Your task to perform on an android device: change the clock display to analog Image 0: 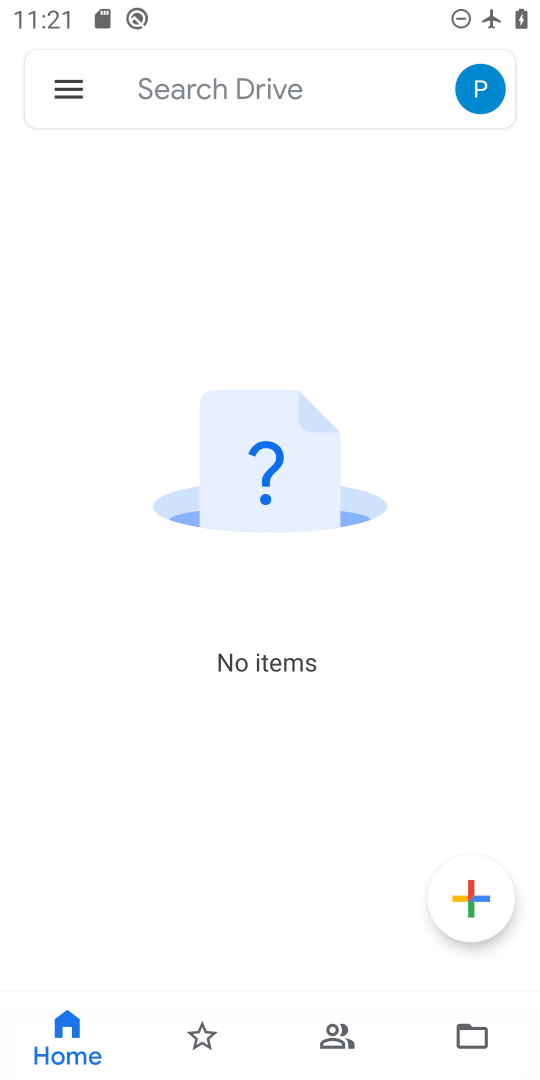
Step 0: press home button
Your task to perform on an android device: change the clock display to analog Image 1: 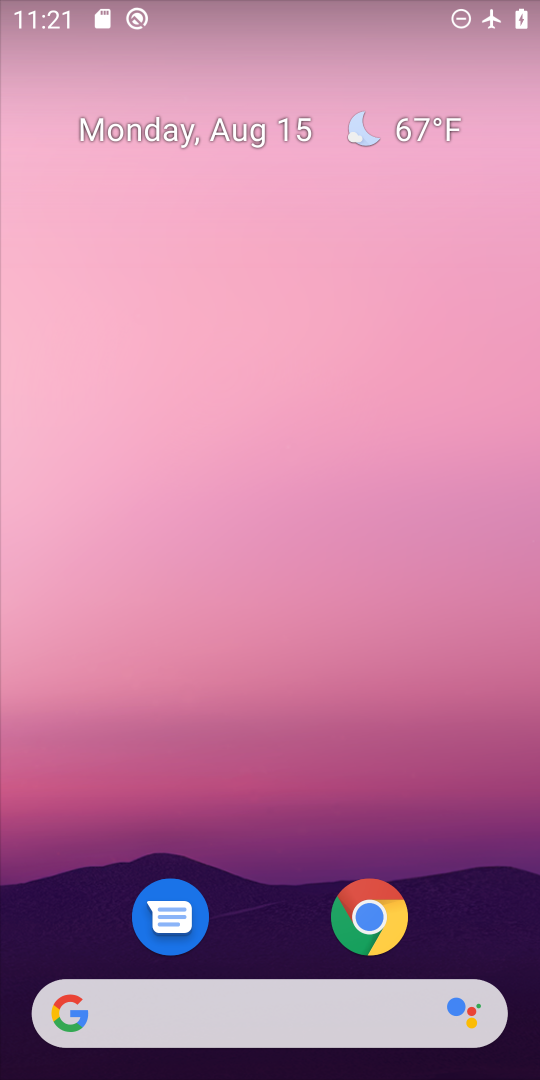
Step 1: drag from (335, 702) to (327, 18)
Your task to perform on an android device: change the clock display to analog Image 2: 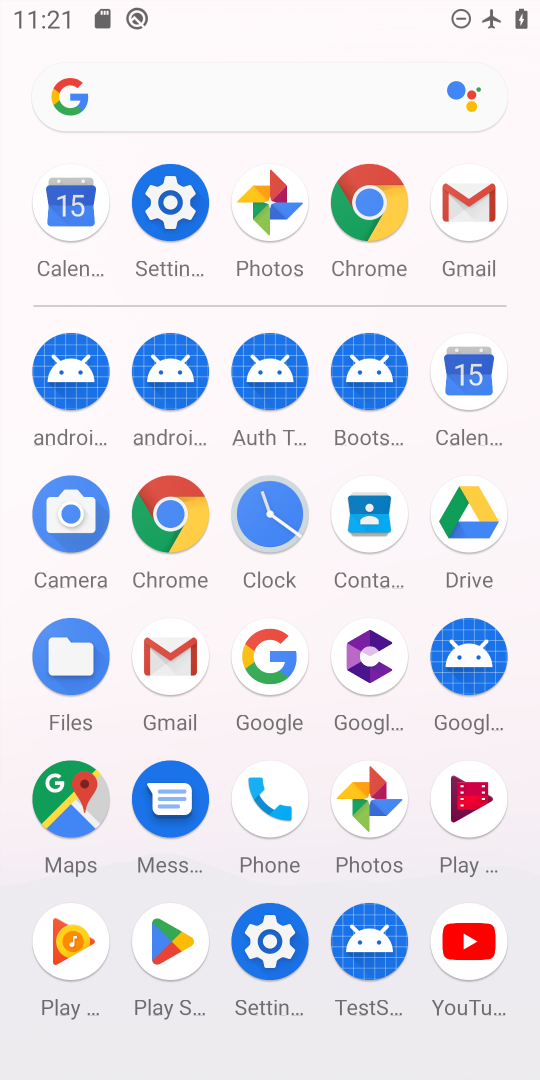
Step 2: click (280, 515)
Your task to perform on an android device: change the clock display to analog Image 3: 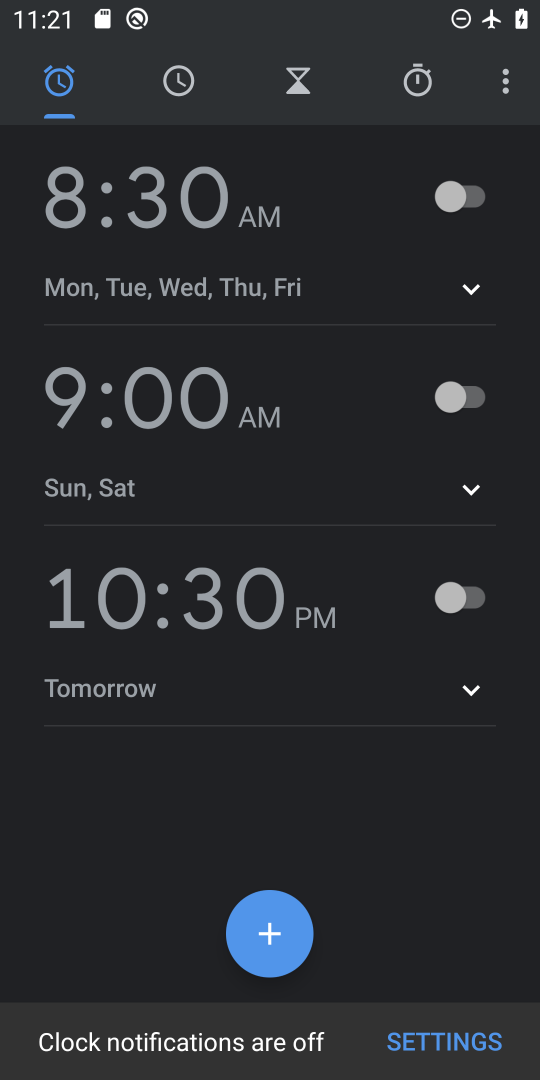
Step 3: click (182, 75)
Your task to perform on an android device: change the clock display to analog Image 4: 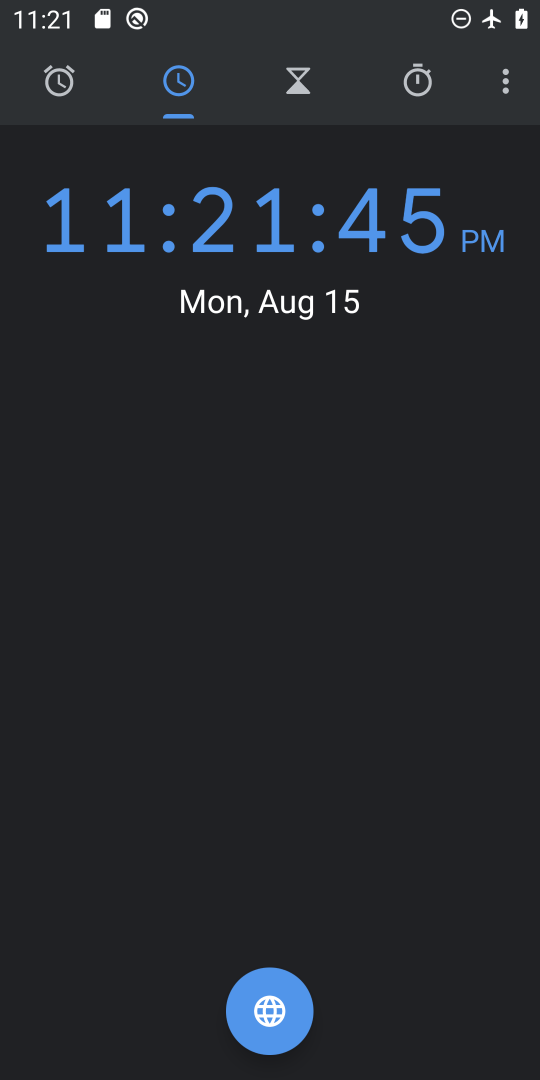
Step 4: click (505, 88)
Your task to perform on an android device: change the clock display to analog Image 5: 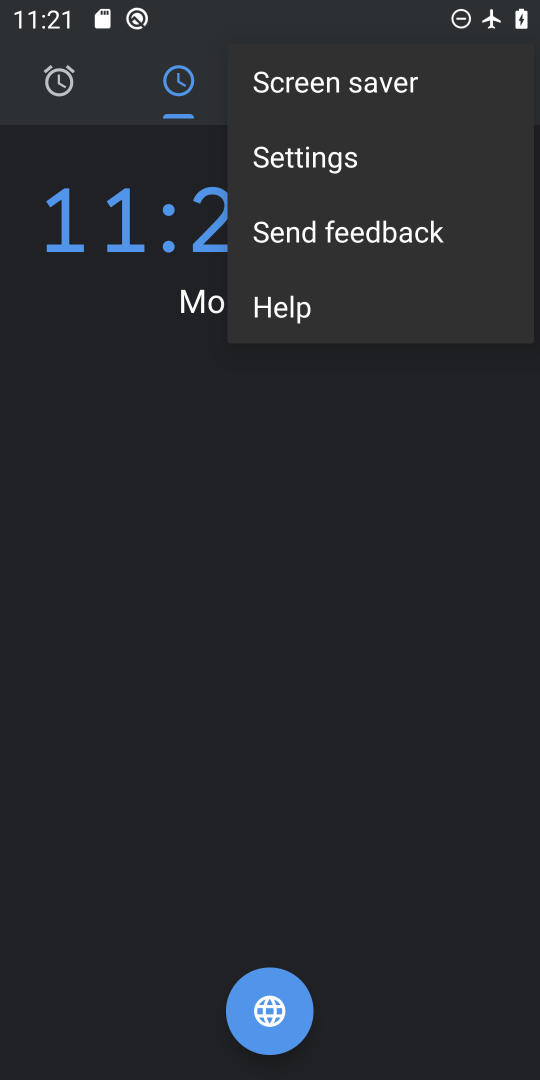
Step 5: click (415, 157)
Your task to perform on an android device: change the clock display to analog Image 6: 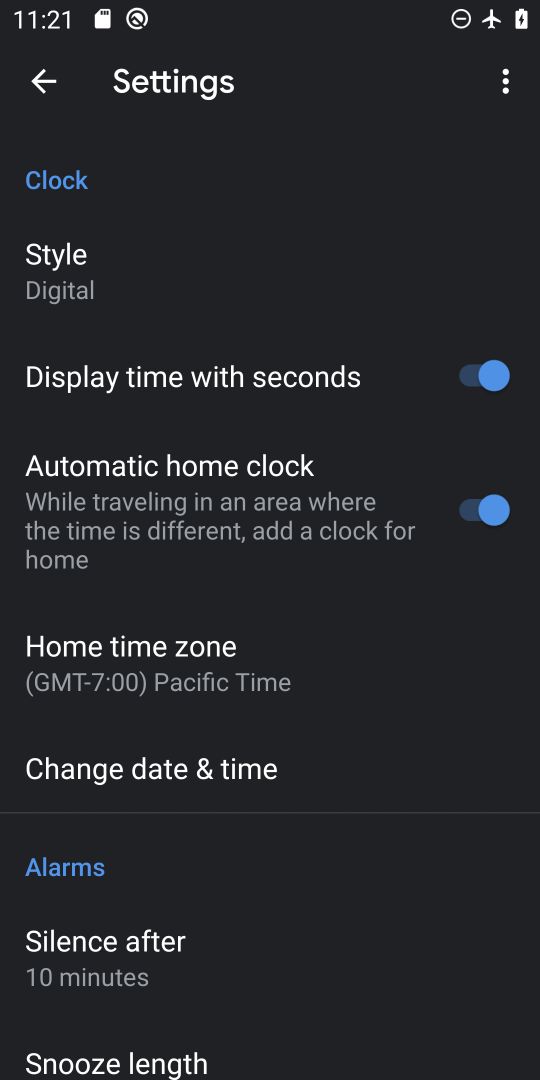
Step 6: click (89, 276)
Your task to perform on an android device: change the clock display to analog Image 7: 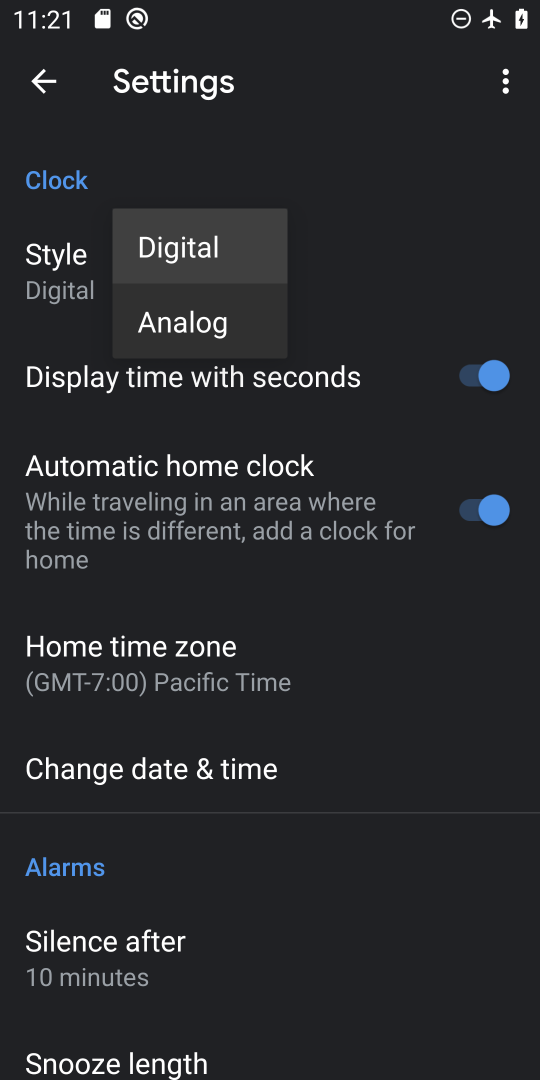
Step 7: click (146, 322)
Your task to perform on an android device: change the clock display to analog Image 8: 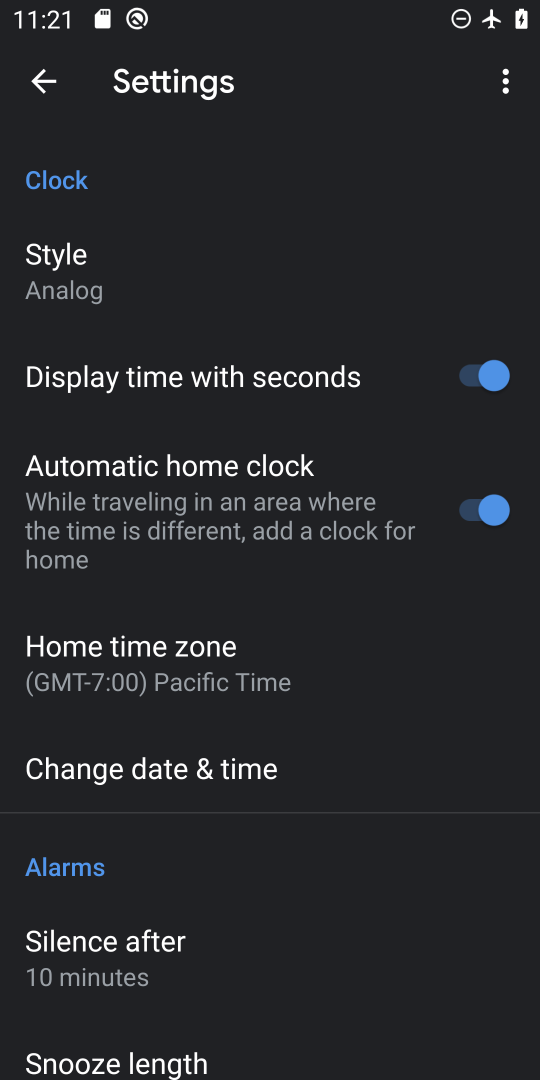
Step 8: click (56, 84)
Your task to perform on an android device: change the clock display to analog Image 9: 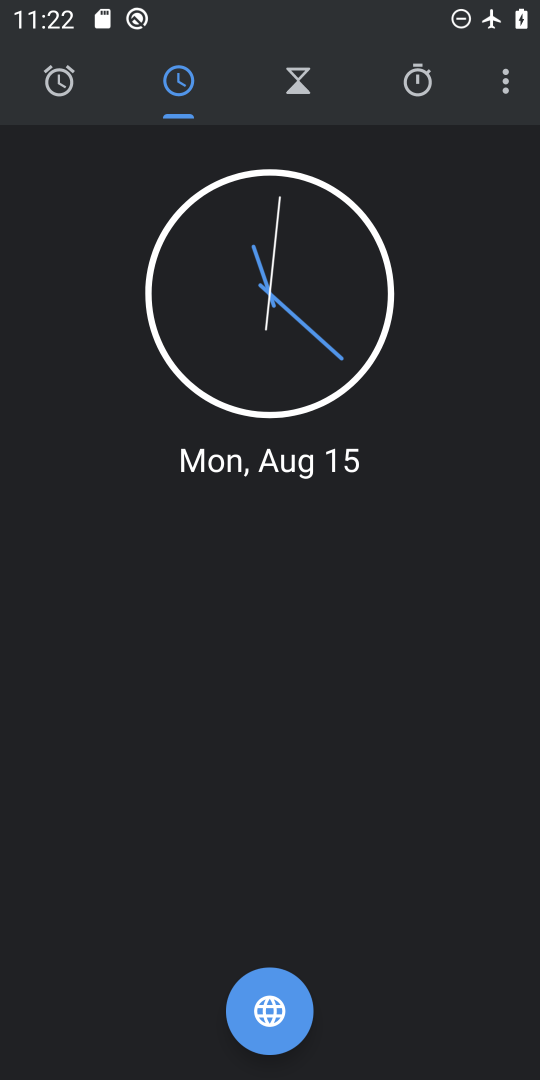
Step 9: task complete